Your task to perform on an android device: Toggle the flashlight Image 0: 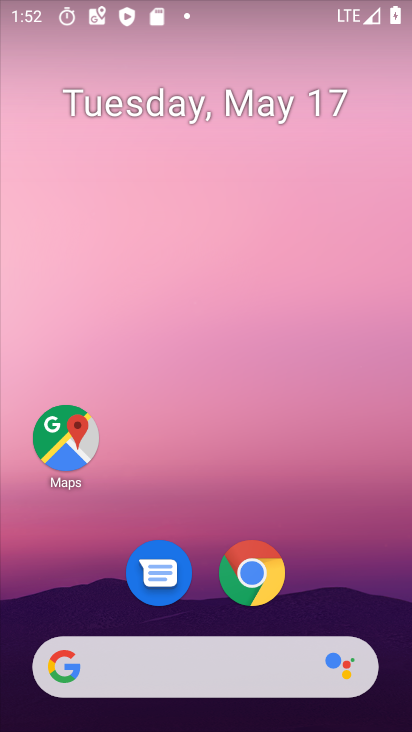
Step 0: drag from (206, 3) to (225, 720)
Your task to perform on an android device: Toggle the flashlight Image 1: 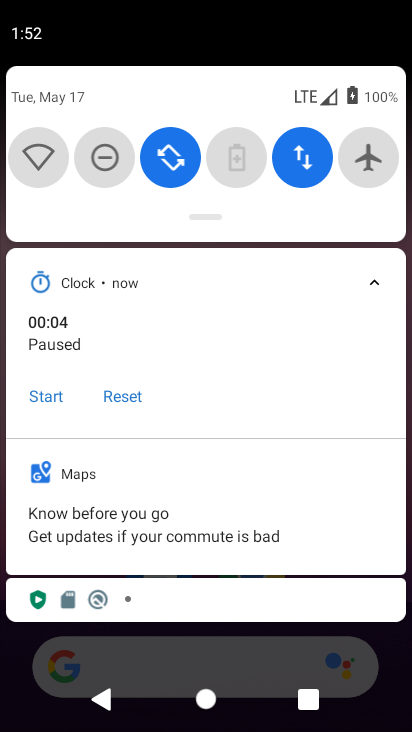
Step 1: drag from (321, 179) to (279, 712)
Your task to perform on an android device: Toggle the flashlight Image 2: 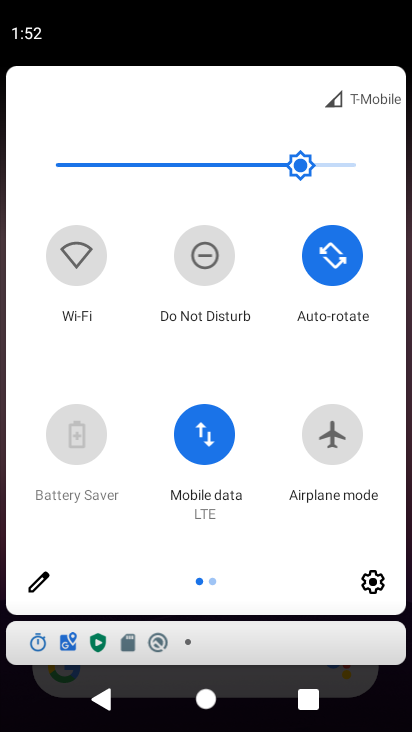
Step 2: click (13, 439)
Your task to perform on an android device: Toggle the flashlight Image 3: 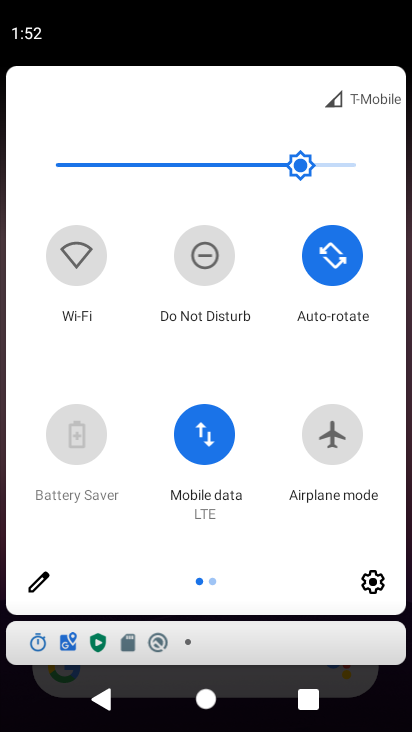
Step 3: task complete